Your task to perform on an android device: turn on data saver in the chrome app Image 0: 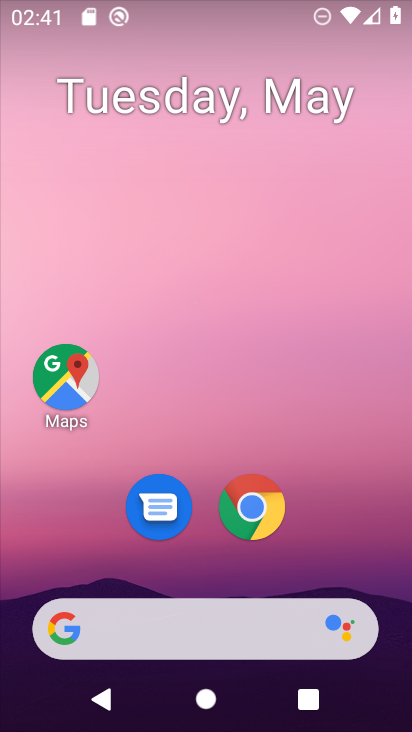
Step 0: click (240, 504)
Your task to perform on an android device: turn on data saver in the chrome app Image 1: 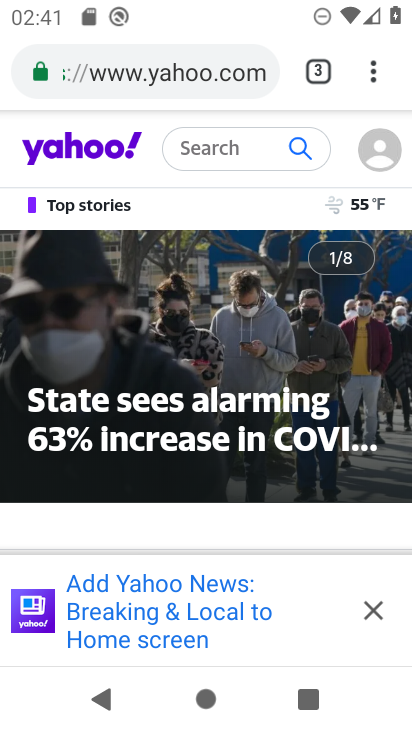
Step 1: drag from (379, 61) to (161, 505)
Your task to perform on an android device: turn on data saver in the chrome app Image 2: 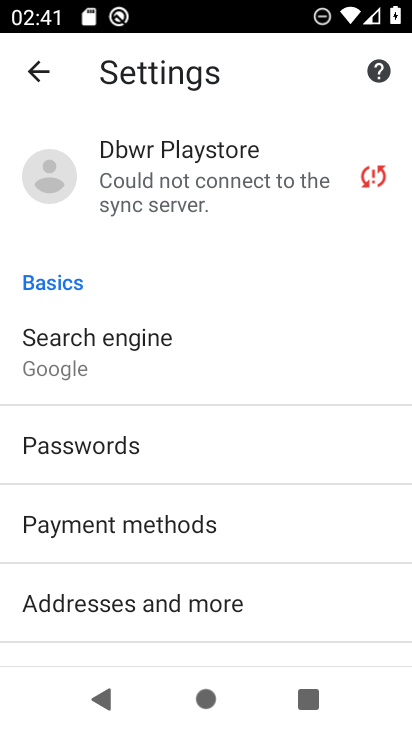
Step 2: drag from (175, 555) to (207, 242)
Your task to perform on an android device: turn on data saver in the chrome app Image 3: 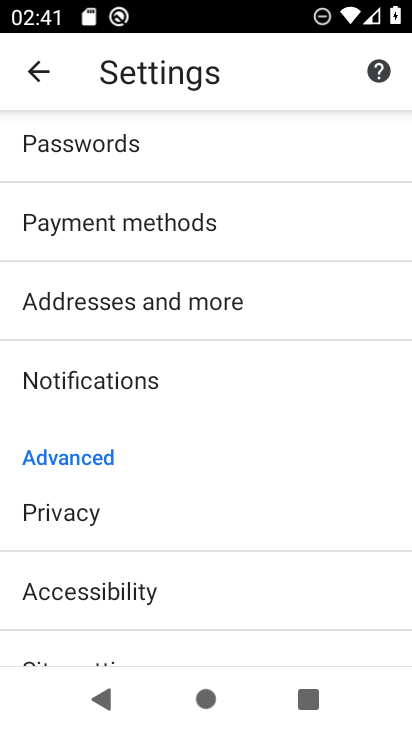
Step 3: drag from (227, 534) to (258, 311)
Your task to perform on an android device: turn on data saver in the chrome app Image 4: 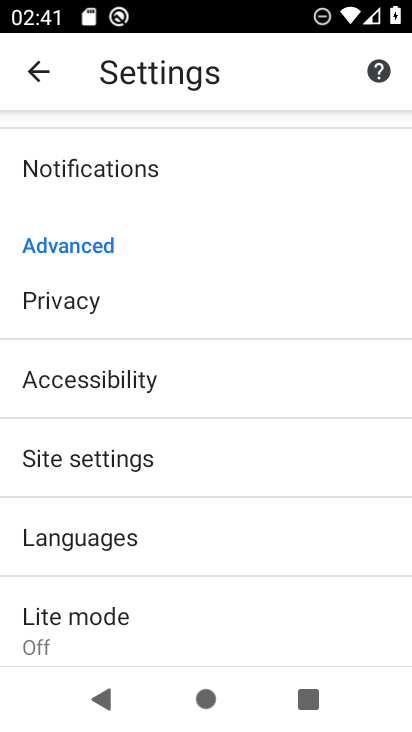
Step 4: click (161, 608)
Your task to perform on an android device: turn on data saver in the chrome app Image 5: 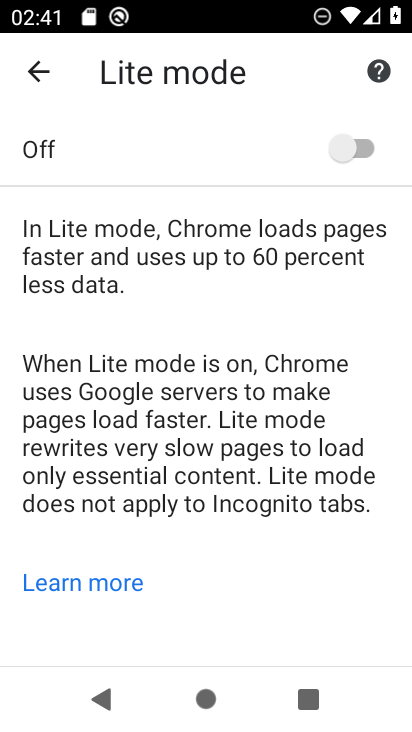
Step 5: click (361, 150)
Your task to perform on an android device: turn on data saver in the chrome app Image 6: 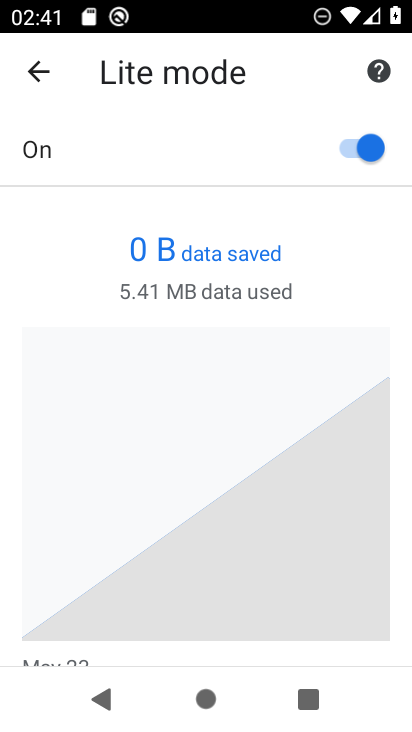
Step 6: task complete